Your task to perform on an android device: stop showing notifications on the lock screen Image 0: 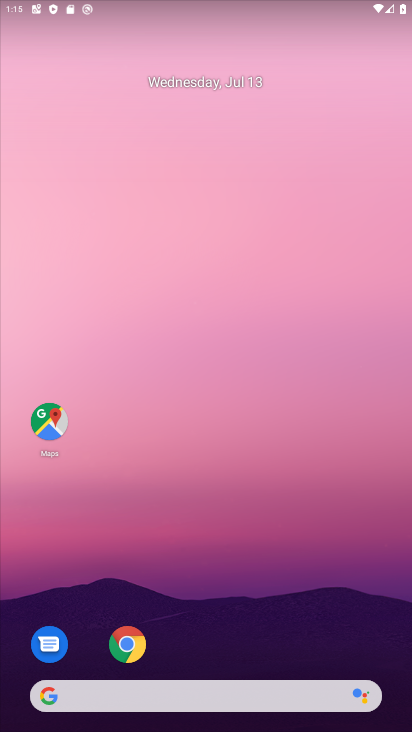
Step 0: press home button
Your task to perform on an android device: stop showing notifications on the lock screen Image 1: 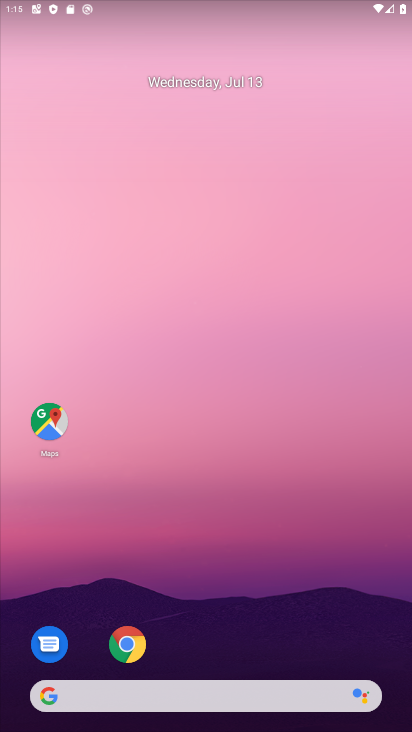
Step 1: drag from (228, 623) to (205, 71)
Your task to perform on an android device: stop showing notifications on the lock screen Image 2: 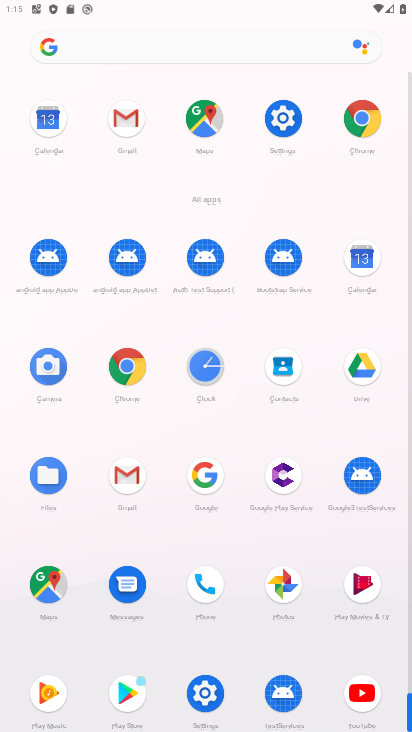
Step 2: click (279, 123)
Your task to perform on an android device: stop showing notifications on the lock screen Image 3: 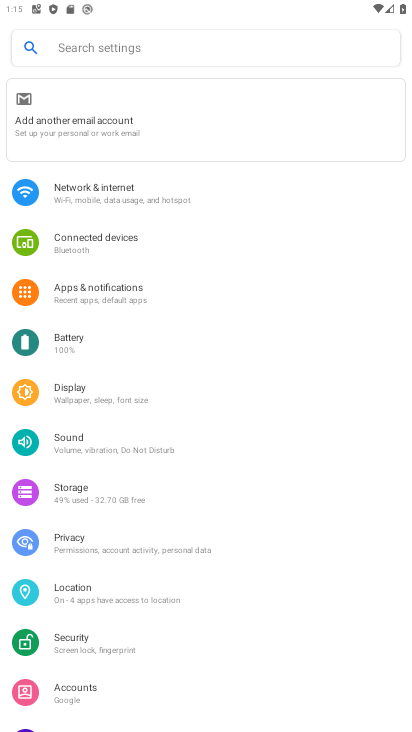
Step 3: click (78, 288)
Your task to perform on an android device: stop showing notifications on the lock screen Image 4: 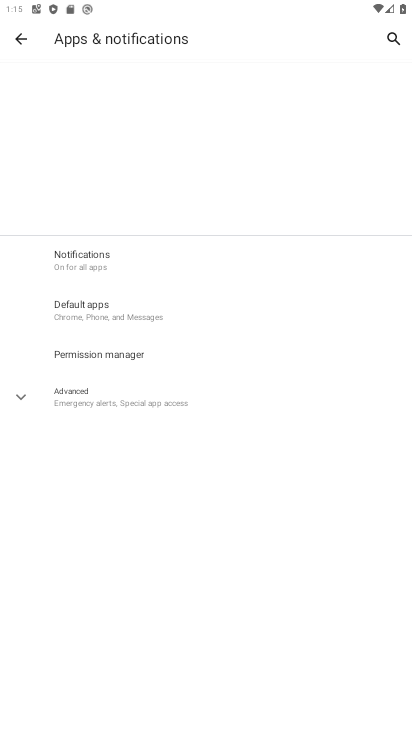
Step 4: click (120, 247)
Your task to perform on an android device: stop showing notifications on the lock screen Image 5: 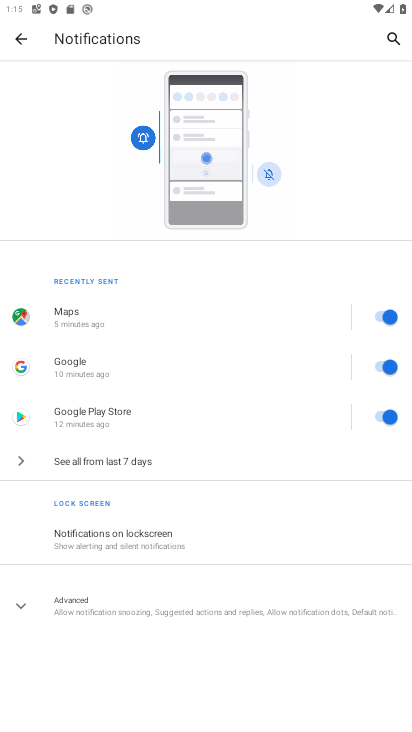
Step 5: click (126, 546)
Your task to perform on an android device: stop showing notifications on the lock screen Image 6: 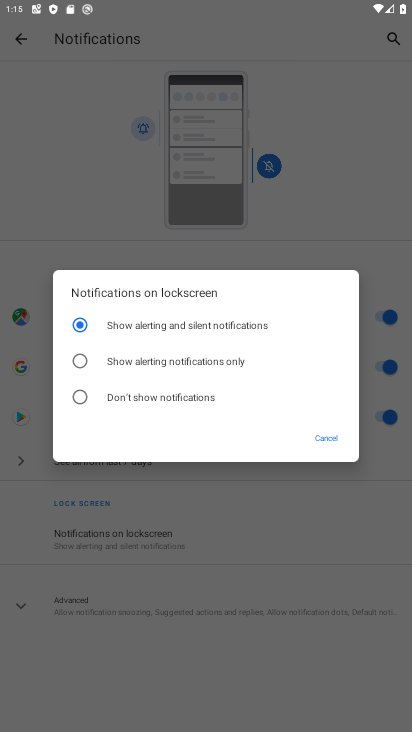
Step 6: click (83, 391)
Your task to perform on an android device: stop showing notifications on the lock screen Image 7: 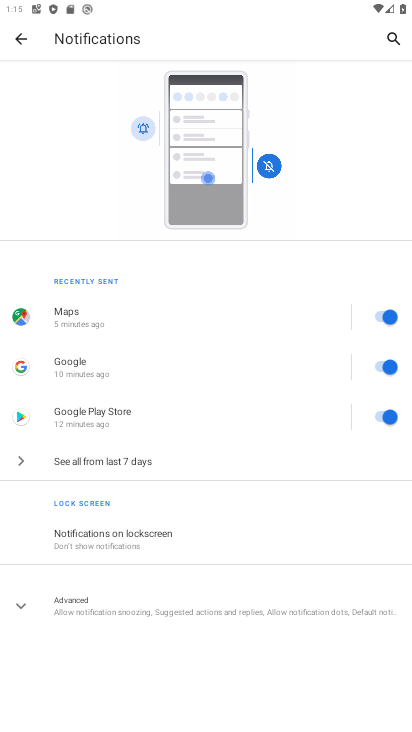
Step 7: task complete